Your task to perform on an android device: turn on translation in the chrome app Image 0: 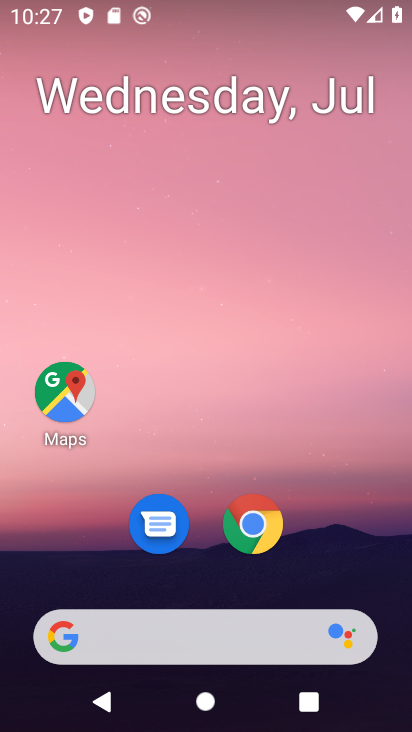
Step 0: click (229, 521)
Your task to perform on an android device: turn on translation in the chrome app Image 1: 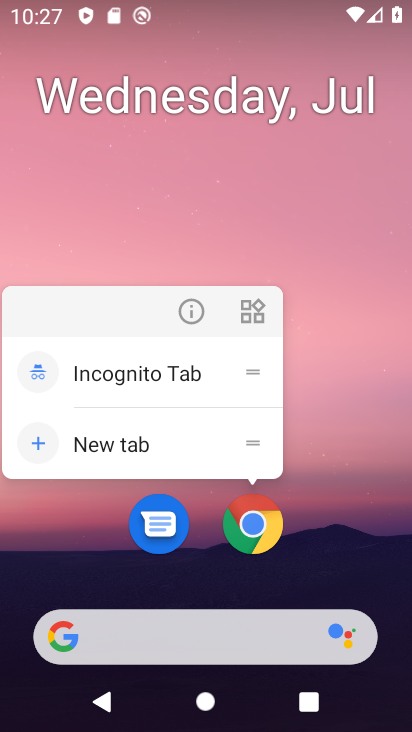
Step 1: click (246, 522)
Your task to perform on an android device: turn on translation in the chrome app Image 2: 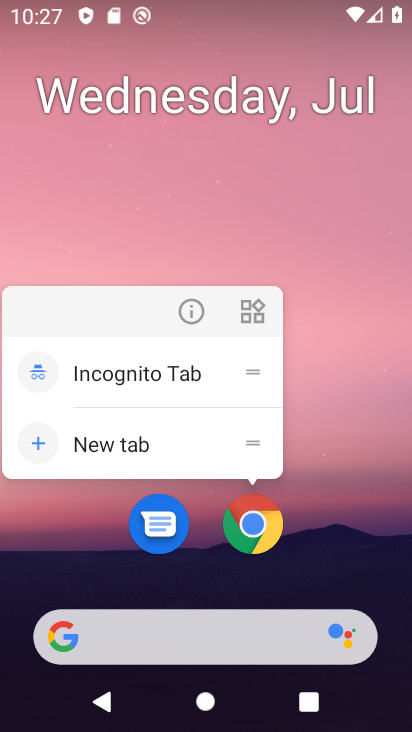
Step 2: click (247, 522)
Your task to perform on an android device: turn on translation in the chrome app Image 3: 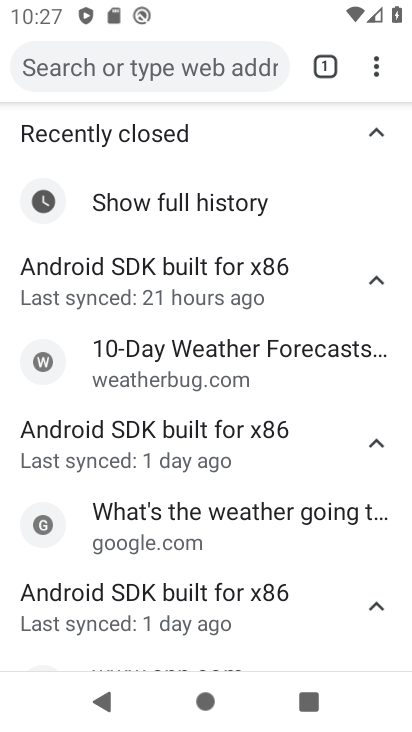
Step 3: drag from (375, 66) to (205, 557)
Your task to perform on an android device: turn on translation in the chrome app Image 4: 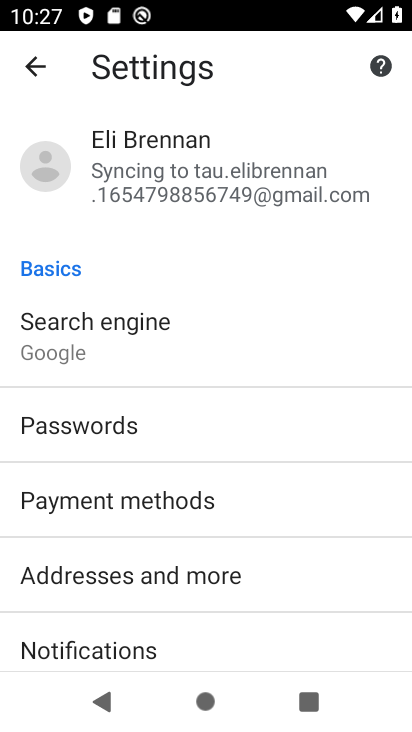
Step 4: drag from (213, 642) to (242, 185)
Your task to perform on an android device: turn on translation in the chrome app Image 5: 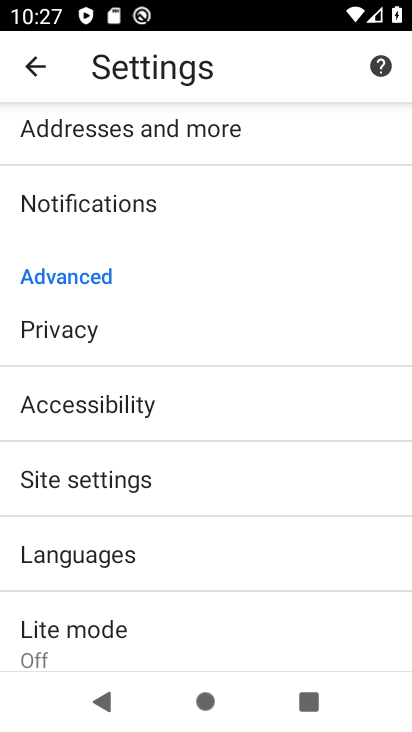
Step 5: click (133, 562)
Your task to perform on an android device: turn on translation in the chrome app Image 6: 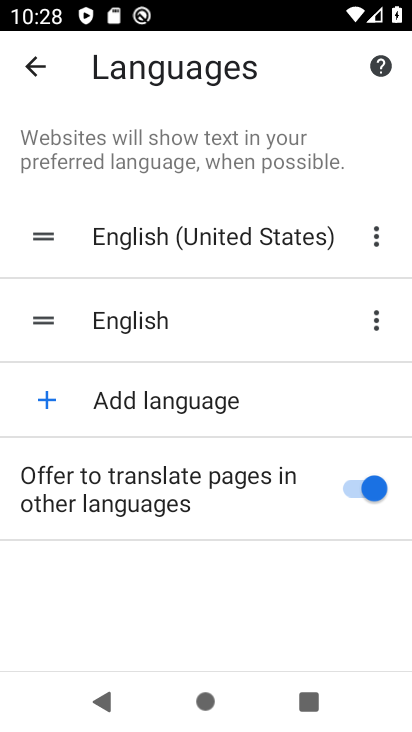
Step 6: task complete